Your task to perform on an android device: Open Google Maps and go to "Timeline" Image 0: 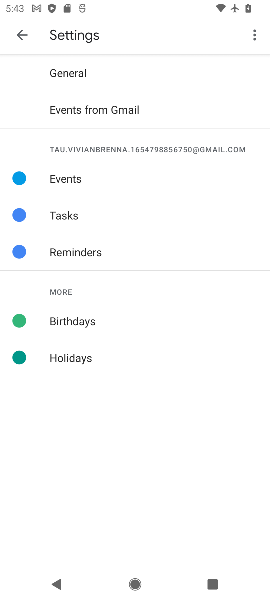
Step 0: press home button
Your task to perform on an android device: Open Google Maps and go to "Timeline" Image 1: 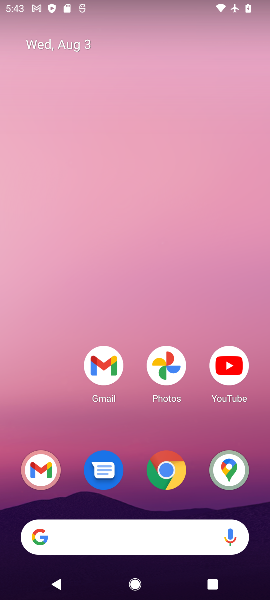
Step 1: drag from (41, 387) to (179, 25)
Your task to perform on an android device: Open Google Maps and go to "Timeline" Image 2: 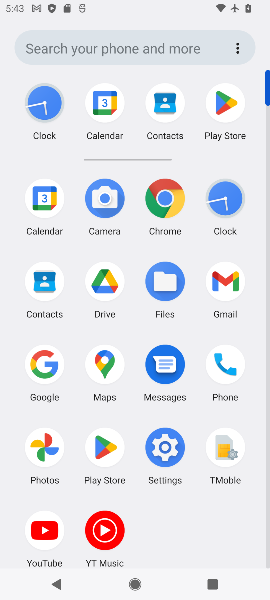
Step 2: click (100, 362)
Your task to perform on an android device: Open Google Maps and go to "Timeline" Image 3: 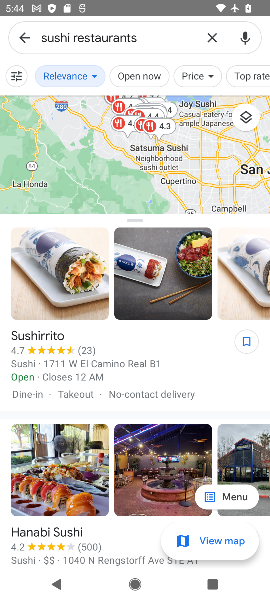
Step 3: click (24, 32)
Your task to perform on an android device: Open Google Maps and go to "Timeline" Image 4: 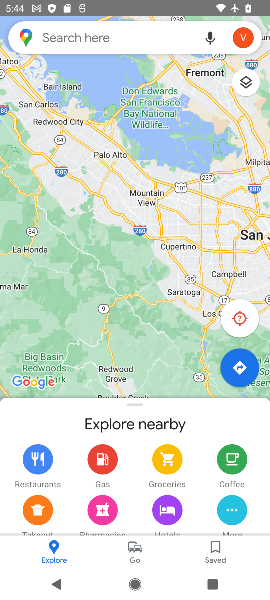
Step 4: click (245, 35)
Your task to perform on an android device: Open Google Maps and go to "Timeline" Image 5: 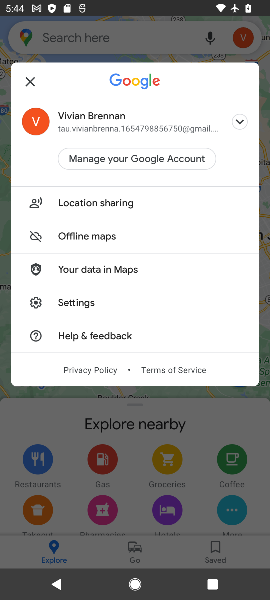
Step 5: click (173, 526)
Your task to perform on an android device: Open Google Maps and go to "Timeline" Image 6: 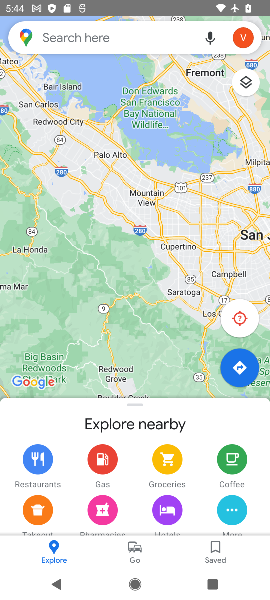
Step 6: click (23, 33)
Your task to perform on an android device: Open Google Maps and go to "Timeline" Image 7: 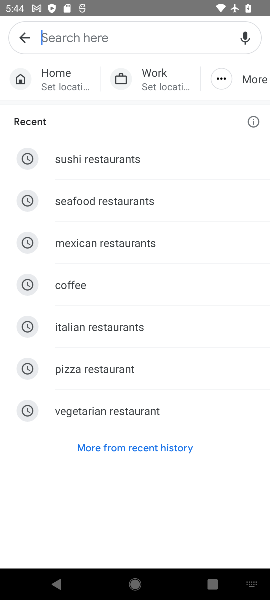
Step 7: click (23, 33)
Your task to perform on an android device: Open Google Maps and go to "Timeline" Image 8: 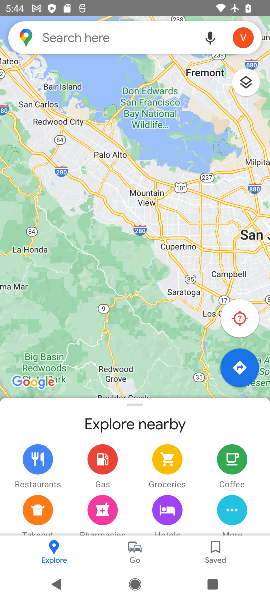
Step 8: click (233, 504)
Your task to perform on an android device: Open Google Maps and go to "Timeline" Image 9: 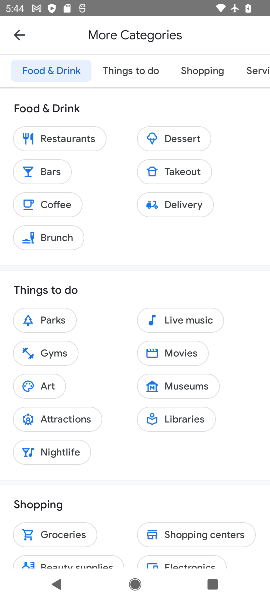
Step 9: drag from (235, 74) to (26, 71)
Your task to perform on an android device: Open Google Maps and go to "Timeline" Image 10: 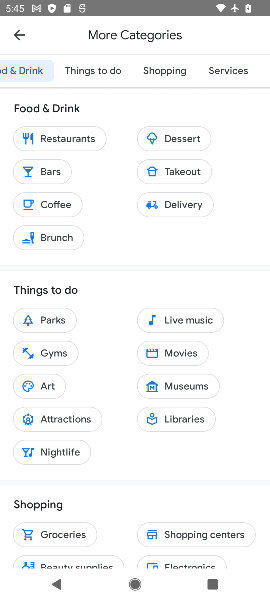
Step 10: click (25, 33)
Your task to perform on an android device: Open Google Maps and go to "Timeline" Image 11: 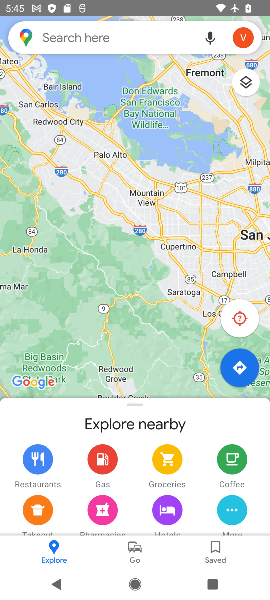
Step 11: click (251, 37)
Your task to perform on an android device: Open Google Maps and go to "Timeline" Image 12: 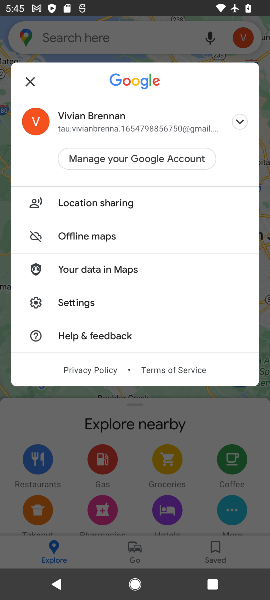
Step 12: click (131, 424)
Your task to perform on an android device: Open Google Maps and go to "Timeline" Image 13: 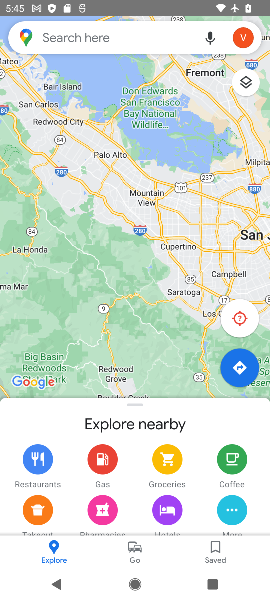
Step 13: drag from (185, 334) to (190, 190)
Your task to perform on an android device: Open Google Maps and go to "Timeline" Image 14: 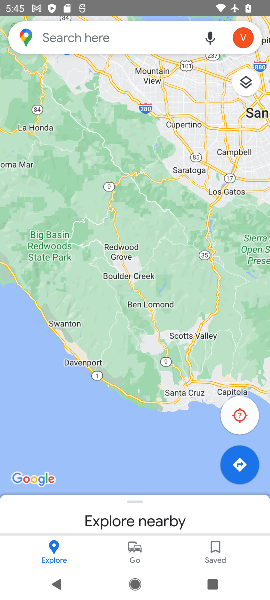
Step 14: click (153, 555)
Your task to perform on an android device: Open Google Maps and go to "Timeline" Image 15: 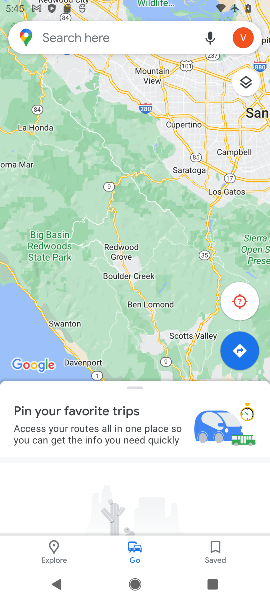
Step 15: click (56, 553)
Your task to perform on an android device: Open Google Maps and go to "Timeline" Image 16: 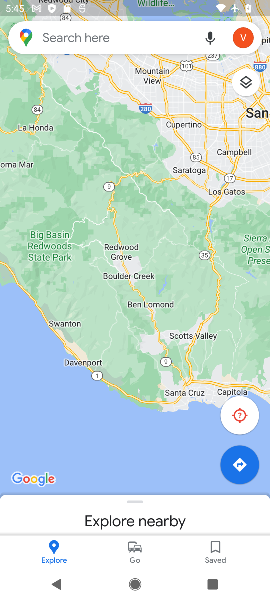
Step 16: click (246, 39)
Your task to perform on an android device: Open Google Maps and go to "Timeline" Image 17: 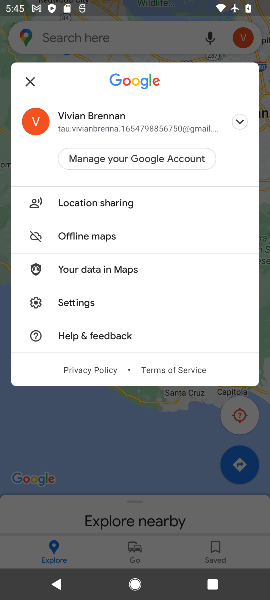
Step 17: click (78, 269)
Your task to perform on an android device: Open Google Maps and go to "Timeline" Image 18: 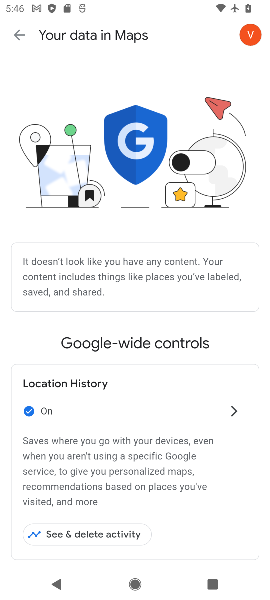
Step 18: click (15, 16)
Your task to perform on an android device: Open Google Maps and go to "Timeline" Image 19: 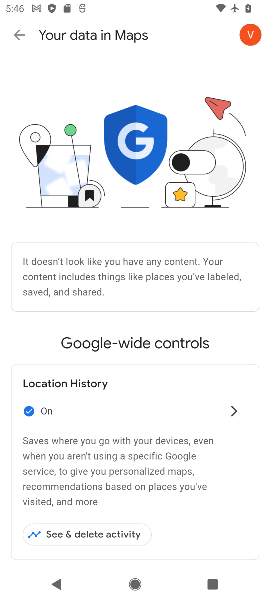
Step 19: click (23, 33)
Your task to perform on an android device: Open Google Maps and go to "Timeline" Image 20: 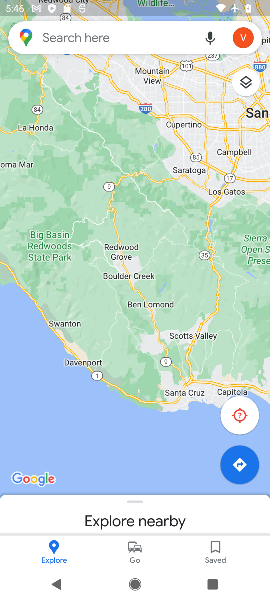
Step 20: task complete